Your task to perform on an android device: Go to internet settings Image 0: 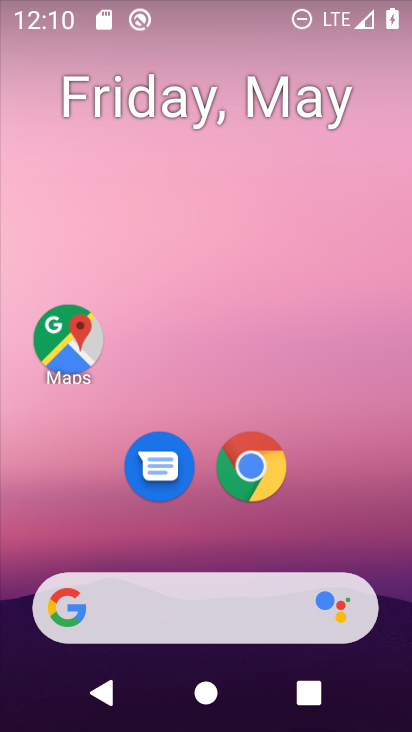
Step 0: drag from (280, 302) to (222, 5)
Your task to perform on an android device: Go to internet settings Image 1: 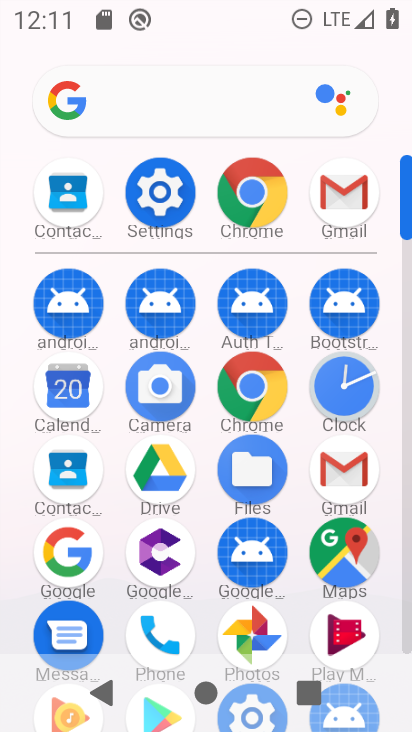
Step 1: click (159, 194)
Your task to perform on an android device: Go to internet settings Image 2: 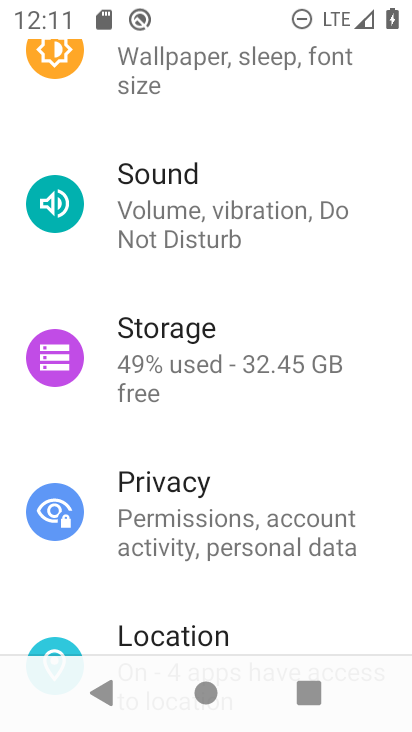
Step 2: drag from (159, 198) to (131, 620)
Your task to perform on an android device: Go to internet settings Image 3: 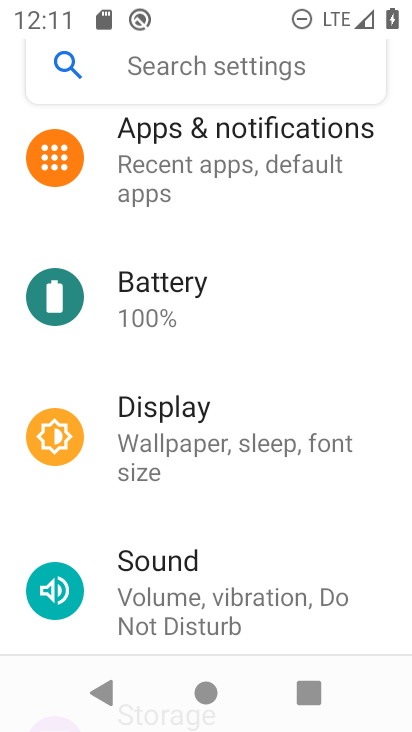
Step 3: drag from (195, 244) to (192, 680)
Your task to perform on an android device: Go to internet settings Image 4: 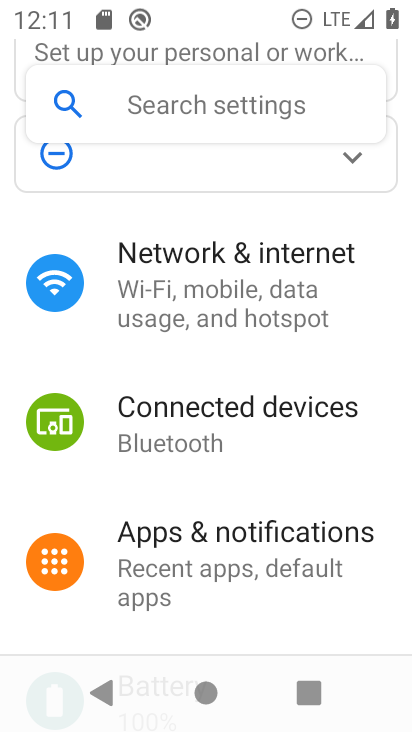
Step 4: click (240, 324)
Your task to perform on an android device: Go to internet settings Image 5: 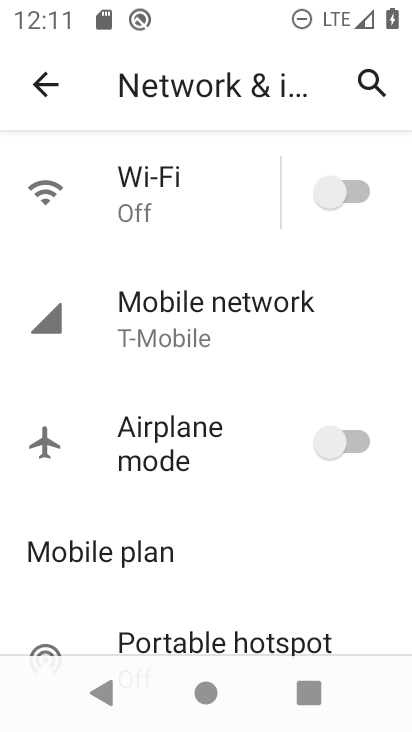
Step 5: task complete